Your task to perform on an android device: Turn on the flashlight Image 0: 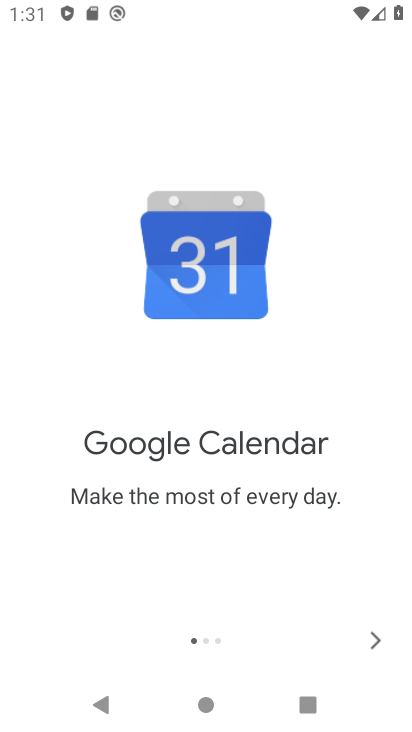
Step 0: press home button
Your task to perform on an android device: Turn on the flashlight Image 1: 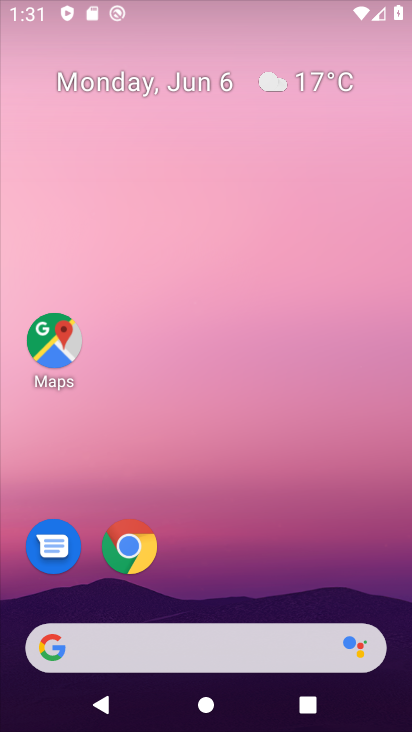
Step 1: drag from (164, 17) to (142, 544)
Your task to perform on an android device: Turn on the flashlight Image 2: 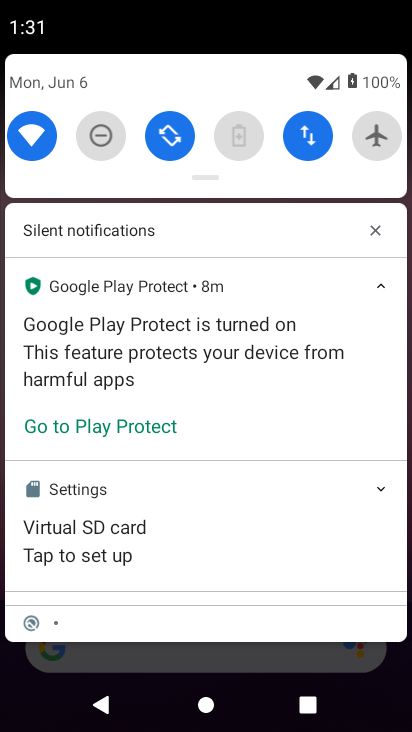
Step 2: drag from (210, 176) to (202, 573)
Your task to perform on an android device: Turn on the flashlight Image 3: 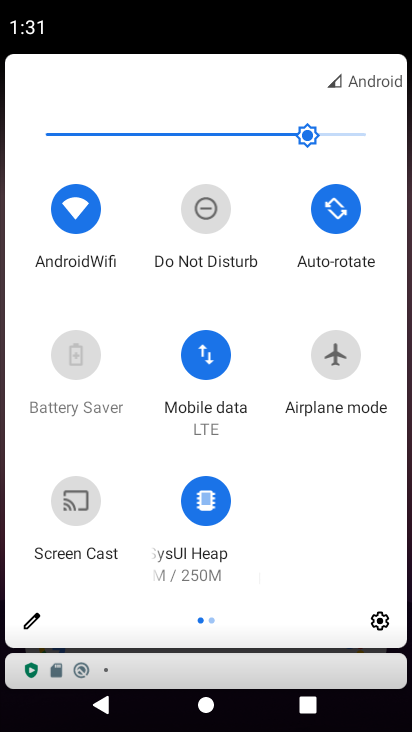
Step 3: click (30, 619)
Your task to perform on an android device: Turn on the flashlight Image 4: 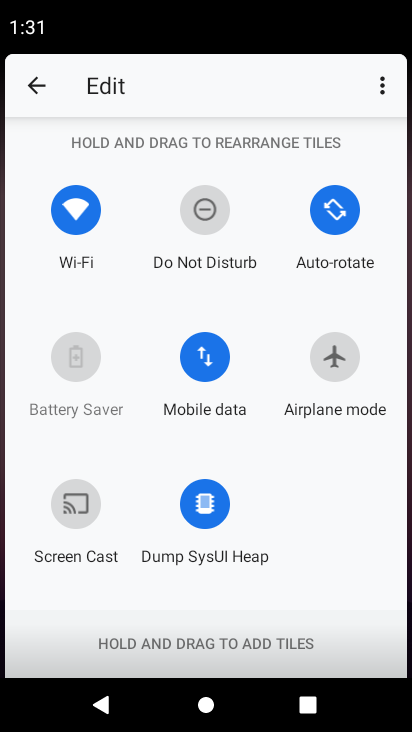
Step 4: task complete